Your task to perform on an android device: Find coffee shops on Maps Image 0: 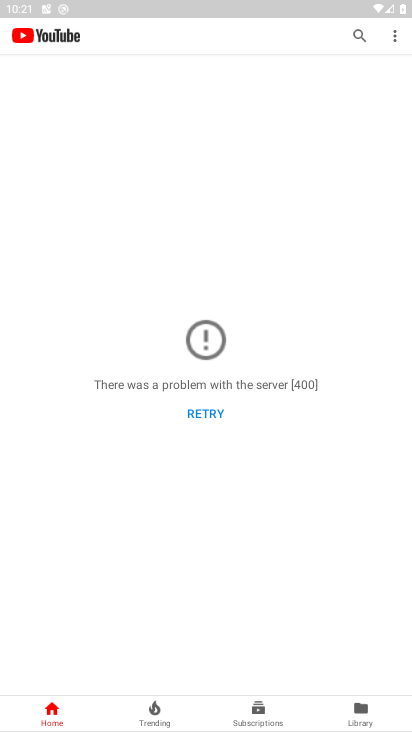
Step 0: press home button
Your task to perform on an android device: Find coffee shops on Maps Image 1: 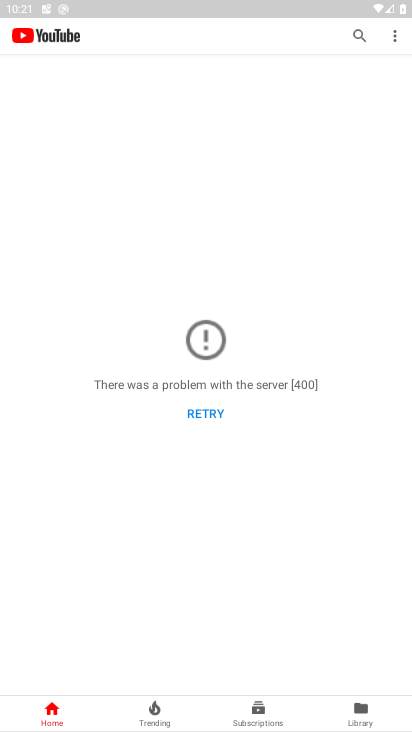
Step 1: press home button
Your task to perform on an android device: Find coffee shops on Maps Image 2: 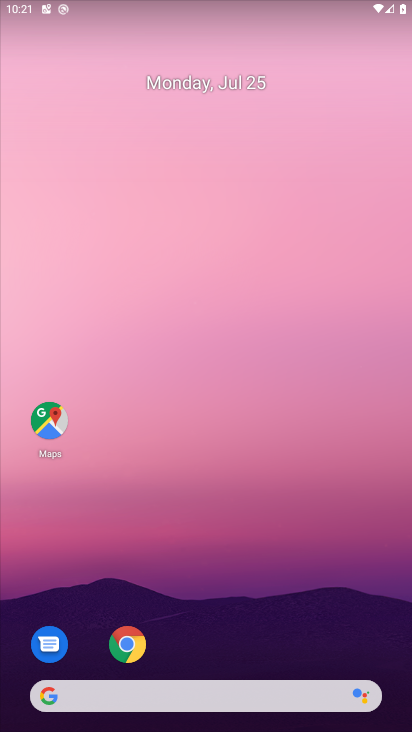
Step 2: drag from (232, 680) to (215, 336)
Your task to perform on an android device: Find coffee shops on Maps Image 3: 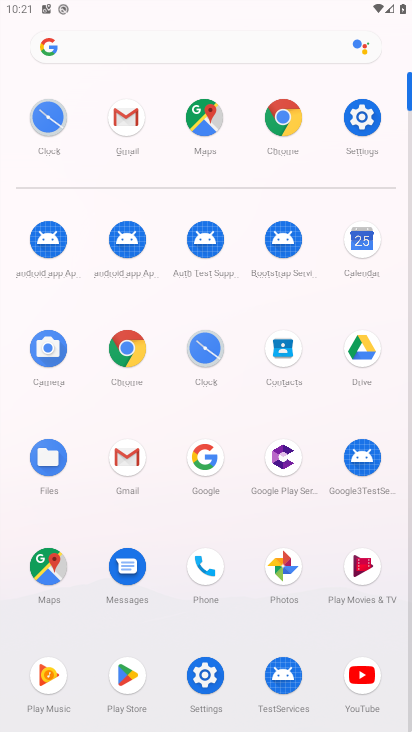
Step 3: click (18, 564)
Your task to perform on an android device: Find coffee shops on Maps Image 4: 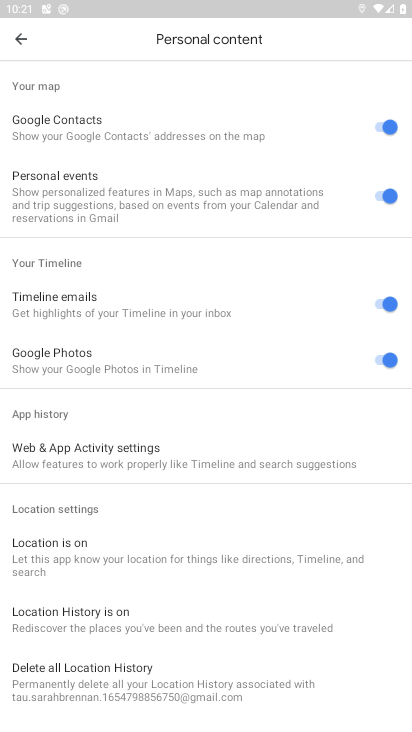
Step 4: click (18, 40)
Your task to perform on an android device: Find coffee shops on Maps Image 5: 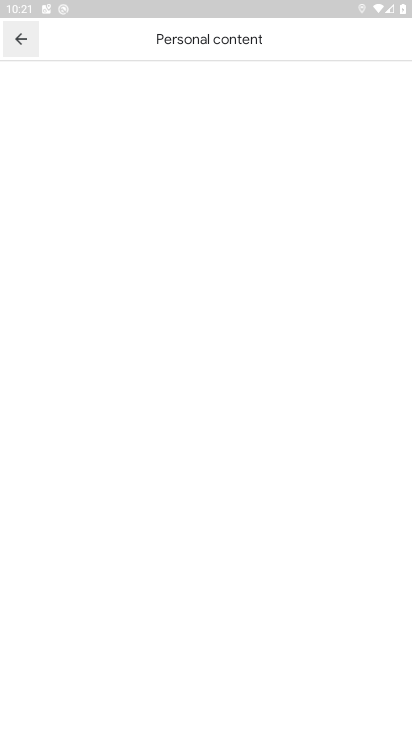
Step 5: click (18, 40)
Your task to perform on an android device: Find coffee shops on Maps Image 6: 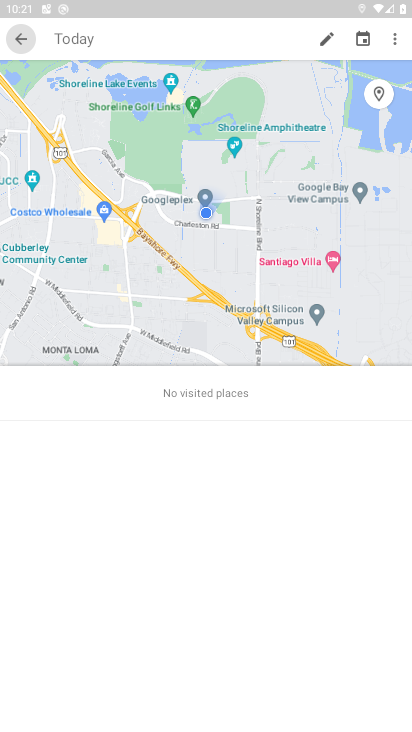
Step 6: click (18, 40)
Your task to perform on an android device: Find coffee shops on Maps Image 7: 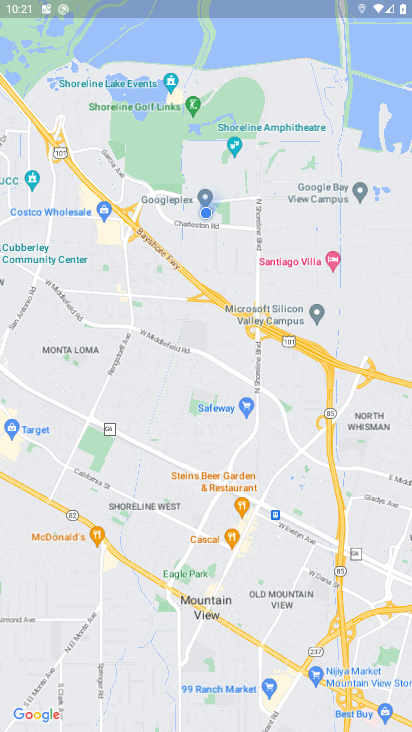
Step 7: click (367, 240)
Your task to perform on an android device: Find coffee shops on Maps Image 8: 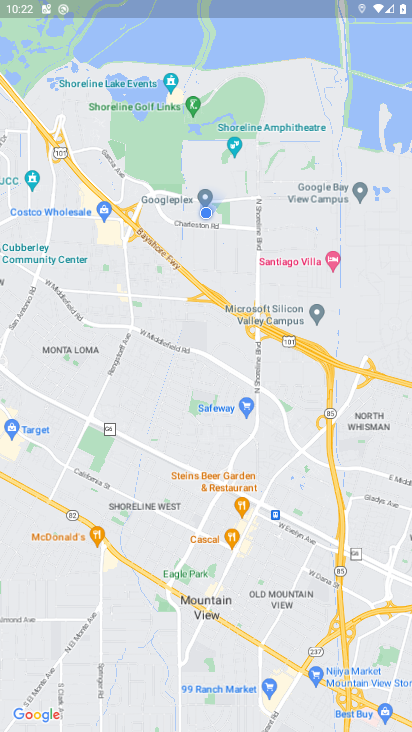
Step 8: press back button
Your task to perform on an android device: Find coffee shops on Maps Image 9: 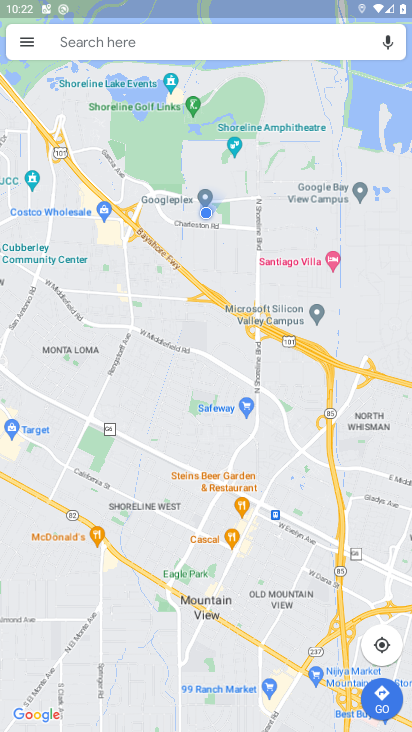
Step 9: click (85, 40)
Your task to perform on an android device: Find coffee shops on Maps Image 10: 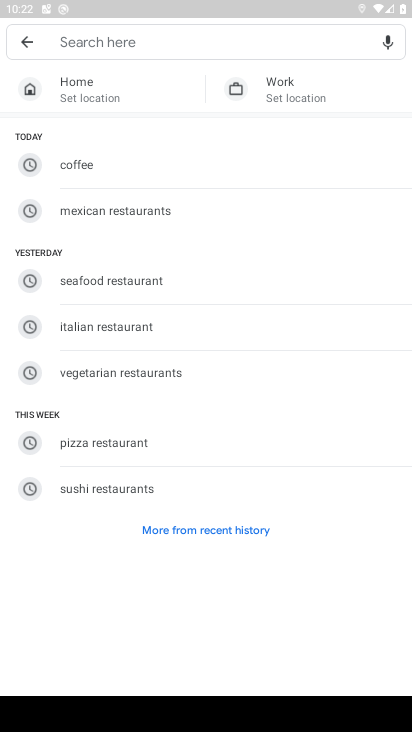
Step 10: type "coffee shops"
Your task to perform on an android device: Find coffee shops on Maps Image 11: 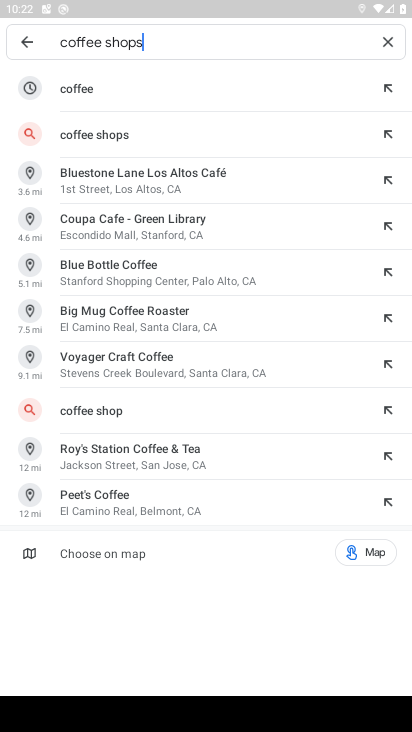
Step 11: click (128, 214)
Your task to perform on an android device: Find coffee shops on Maps Image 12: 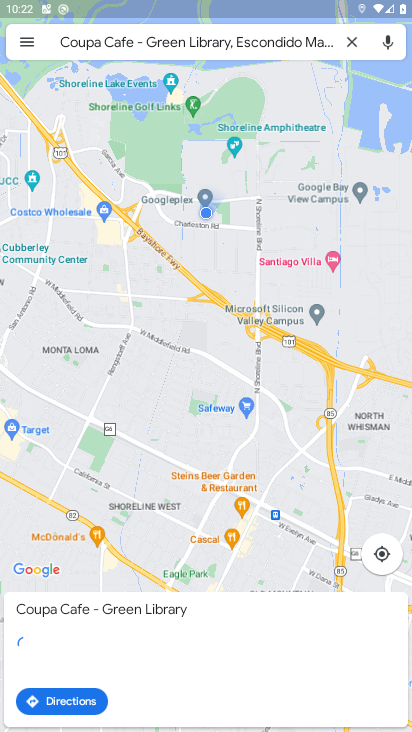
Step 12: press back button
Your task to perform on an android device: Find coffee shops on Maps Image 13: 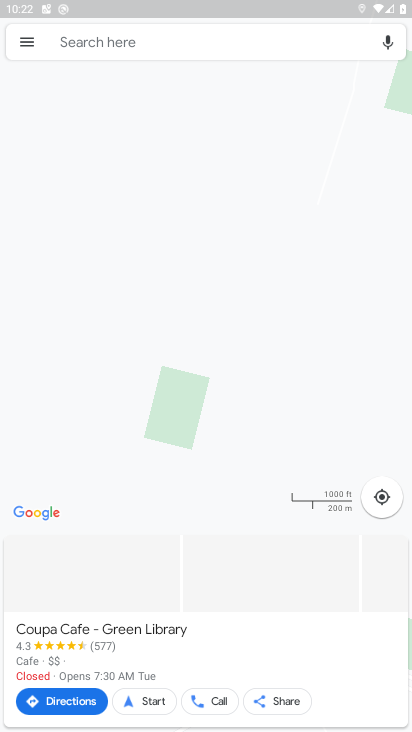
Step 13: press back button
Your task to perform on an android device: Find coffee shops on Maps Image 14: 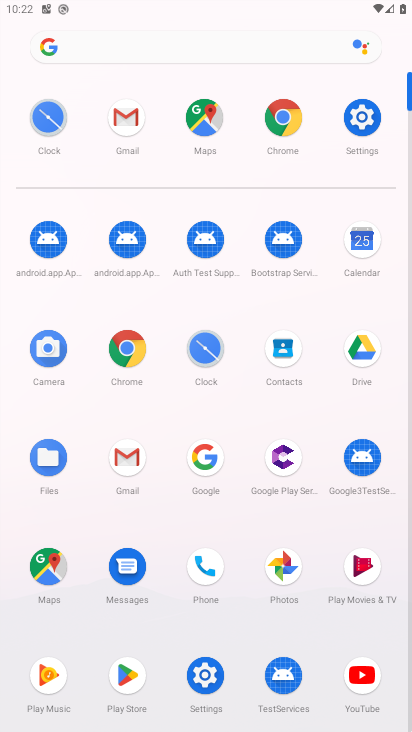
Step 14: click (49, 573)
Your task to perform on an android device: Find coffee shops on Maps Image 15: 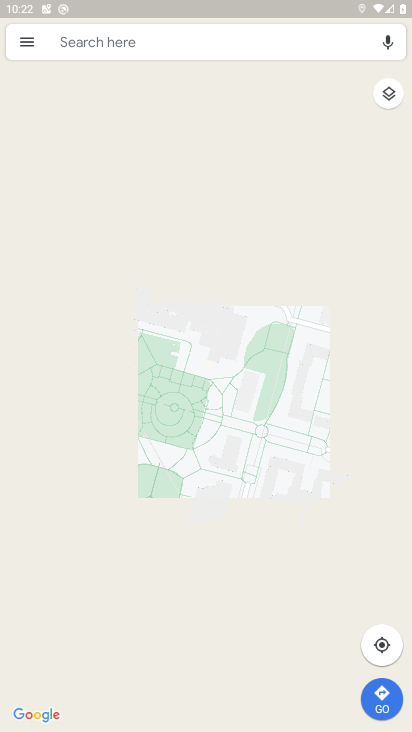
Step 15: click (176, 49)
Your task to perform on an android device: Find coffee shops on Maps Image 16: 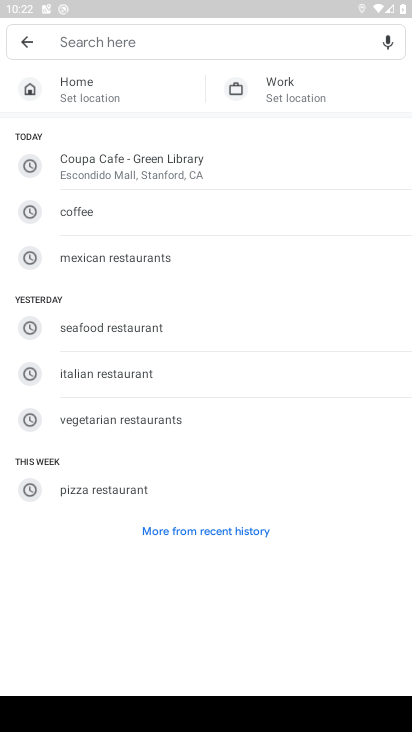
Step 16: type "coffee shops"
Your task to perform on an android device: Find coffee shops on Maps Image 17: 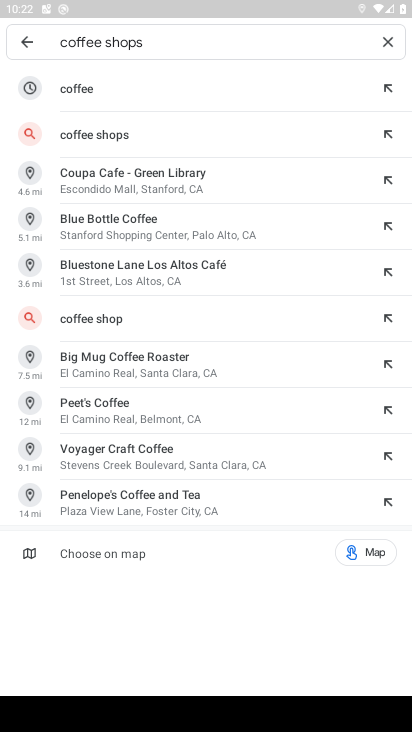
Step 17: click (114, 124)
Your task to perform on an android device: Find coffee shops on Maps Image 18: 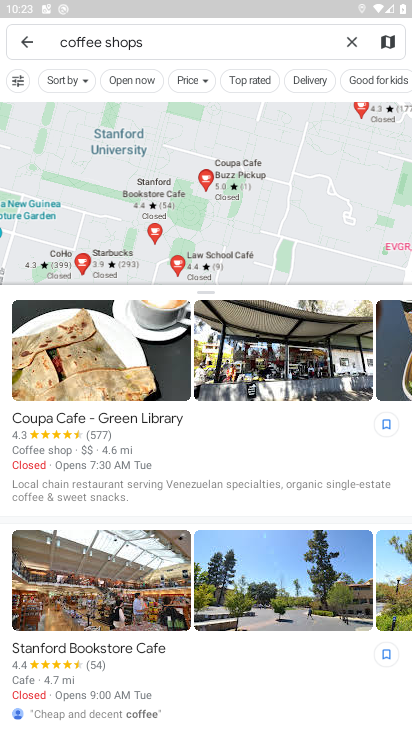
Step 18: task complete